Your task to perform on an android device: turn off javascript in the chrome app Image 0: 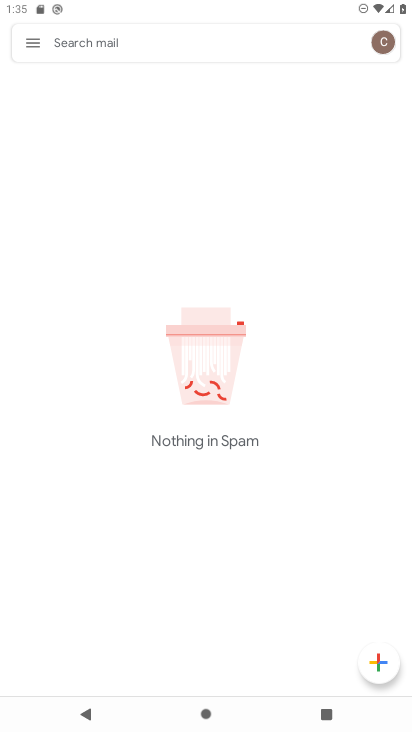
Step 0: press home button
Your task to perform on an android device: turn off javascript in the chrome app Image 1: 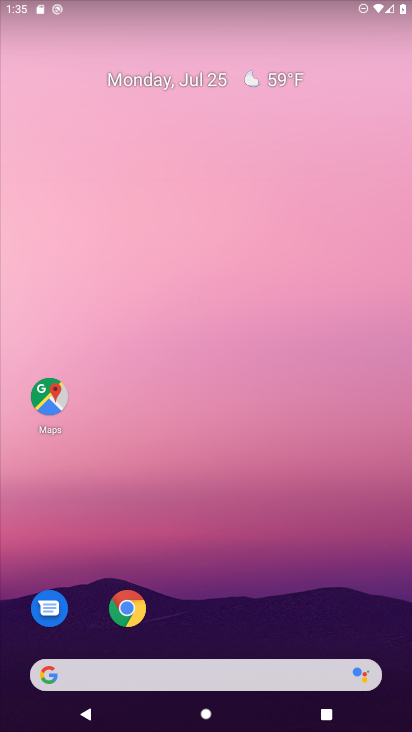
Step 1: click (128, 612)
Your task to perform on an android device: turn off javascript in the chrome app Image 2: 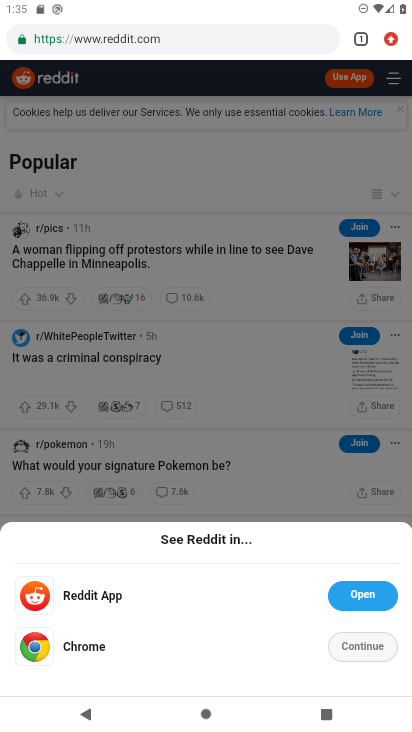
Step 2: click (393, 41)
Your task to perform on an android device: turn off javascript in the chrome app Image 3: 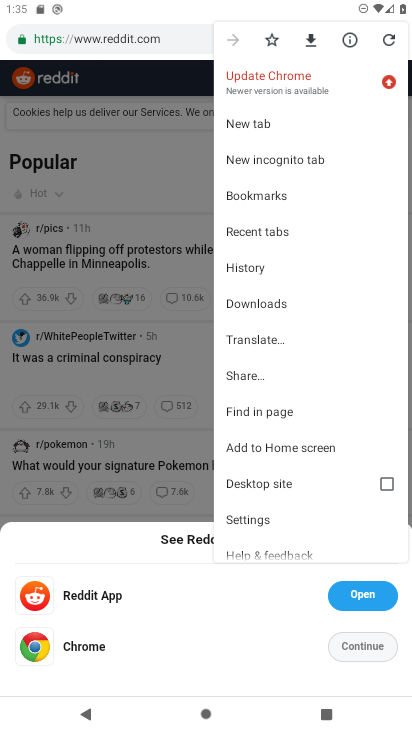
Step 3: click (253, 523)
Your task to perform on an android device: turn off javascript in the chrome app Image 4: 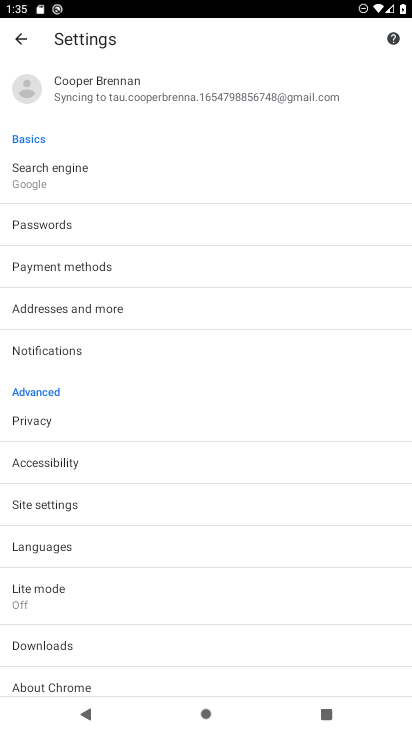
Step 4: click (40, 505)
Your task to perform on an android device: turn off javascript in the chrome app Image 5: 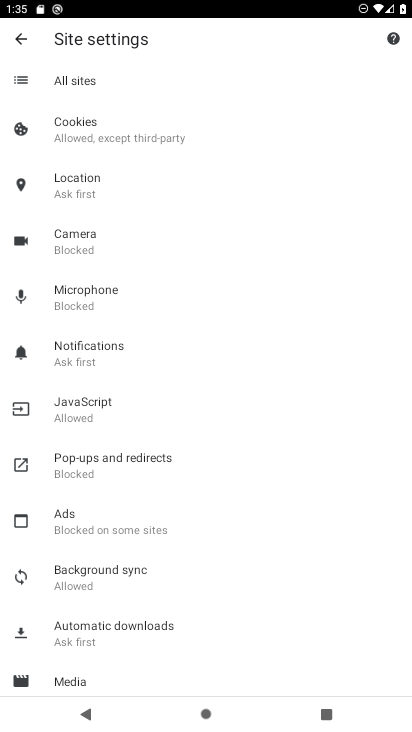
Step 5: click (66, 403)
Your task to perform on an android device: turn off javascript in the chrome app Image 6: 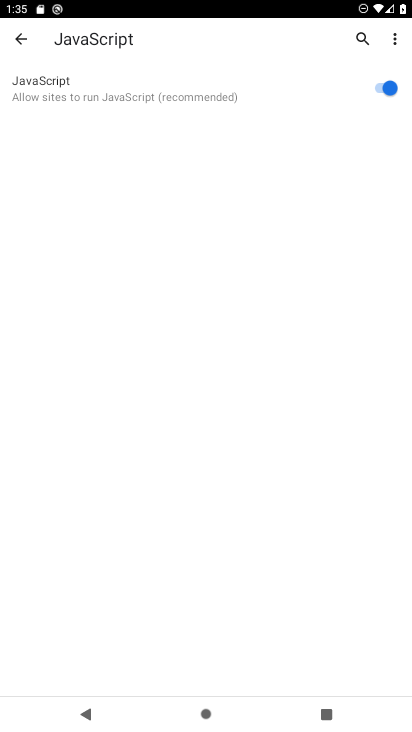
Step 6: click (379, 89)
Your task to perform on an android device: turn off javascript in the chrome app Image 7: 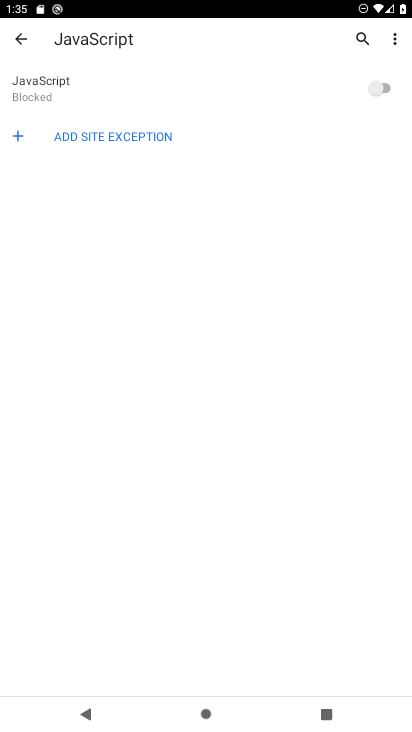
Step 7: task complete